Your task to perform on an android device: Show me popular videos on Youtube Image 0: 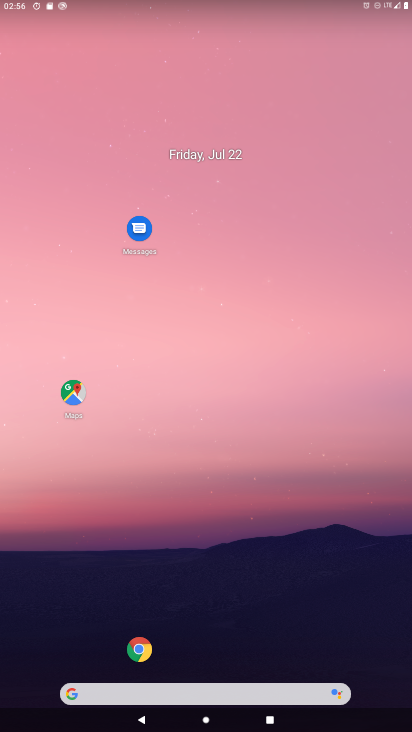
Step 0: drag from (25, 687) to (229, 99)
Your task to perform on an android device: Show me popular videos on Youtube Image 1: 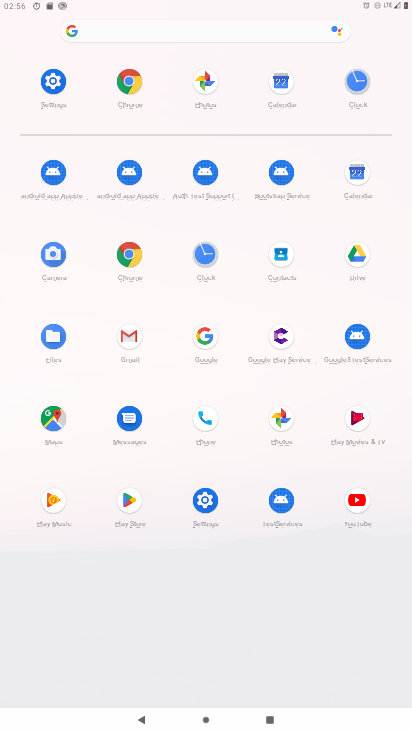
Step 1: click (350, 498)
Your task to perform on an android device: Show me popular videos on Youtube Image 2: 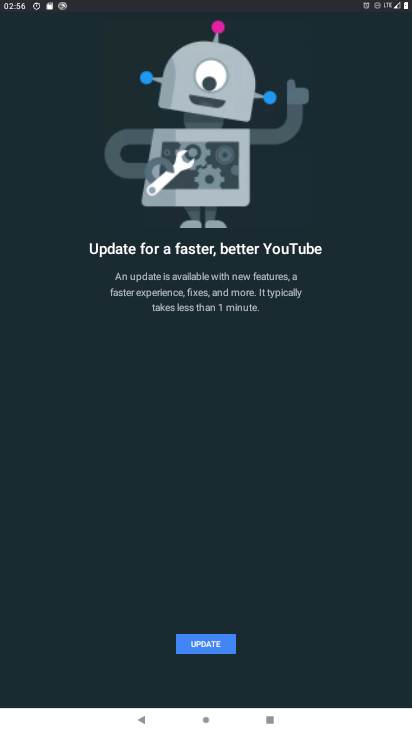
Step 2: click (196, 643)
Your task to perform on an android device: Show me popular videos on Youtube Image 3: 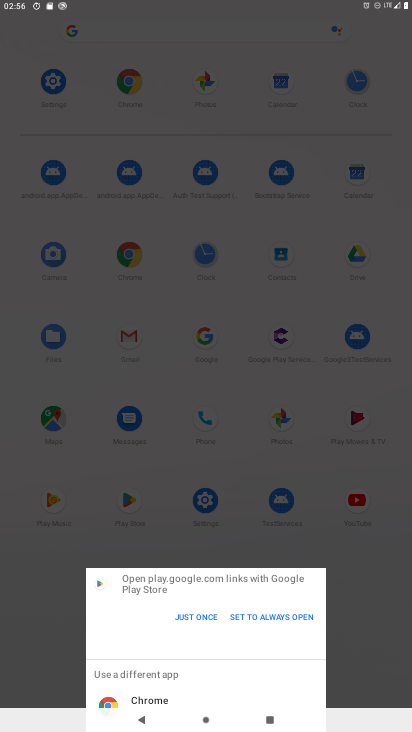
Step 3: click (185, 614)
Your task to perform on an android device: Show me popular videos on Youtube Image 4: 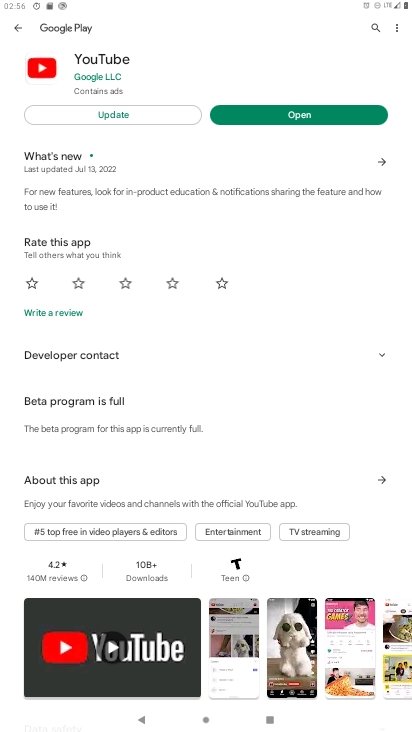
Step 4: task complete